Your task to perform on an android device: move a message to another label in the gmail app Image 0: 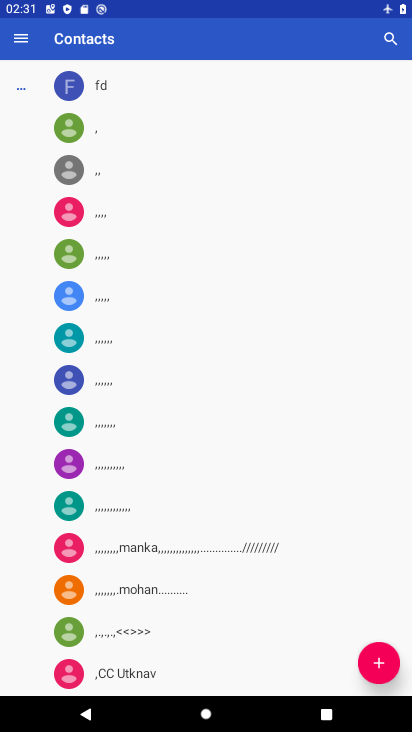
Step 0: press home button
Your task to perform on an android device: move a message to another label in the gmail app Image 1: 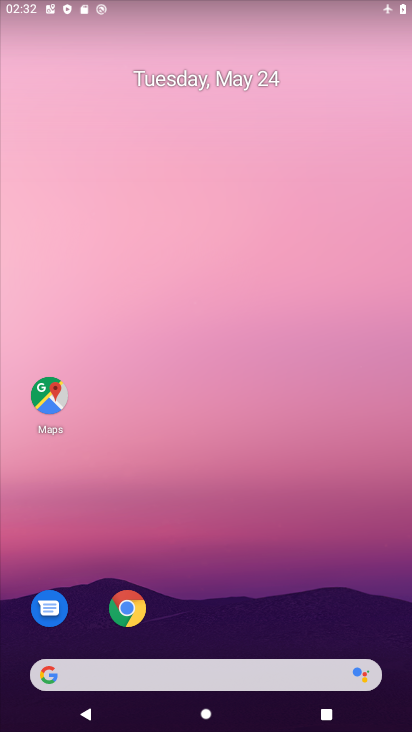
Step 1: drag from (272, 630) to (257, 267)
Your task to perform on an android device: move a message to another label in the gmail app Image 2: 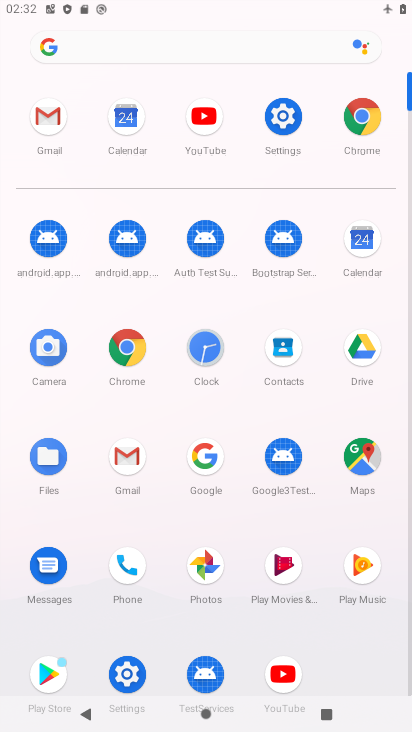
Step 2: click (56, 130)
Your task to perform on an android device: move a message to another label in the gmail app Image 3: 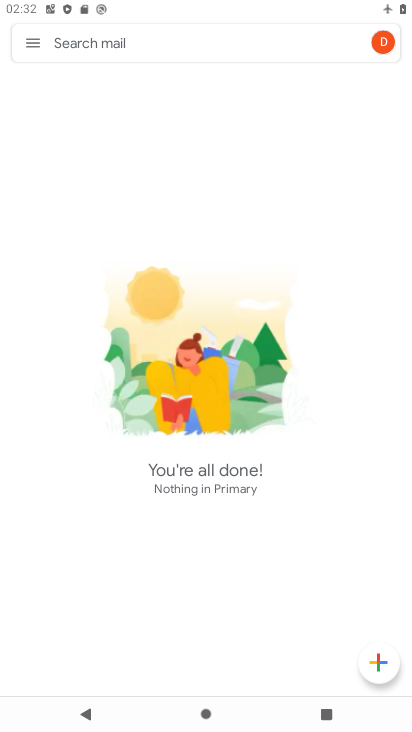
Step 3: click (31, 48)
Your task to perform on an android device: move a message to another label in the gmail app Image 4: 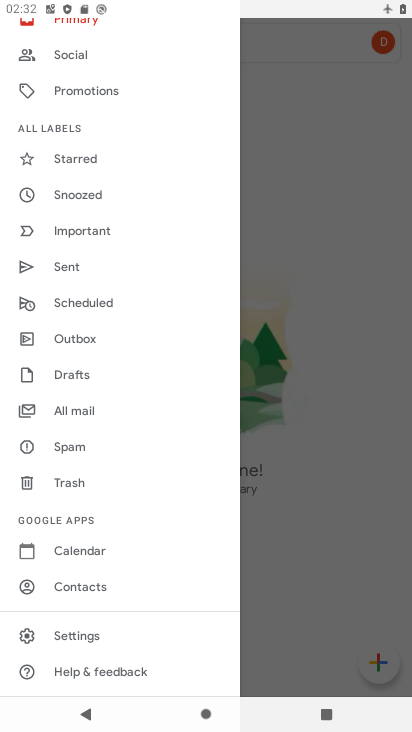
Step 4: click (108, 412)
Your task to perform on an android device: move a message to another label in the gmail app Image 5: 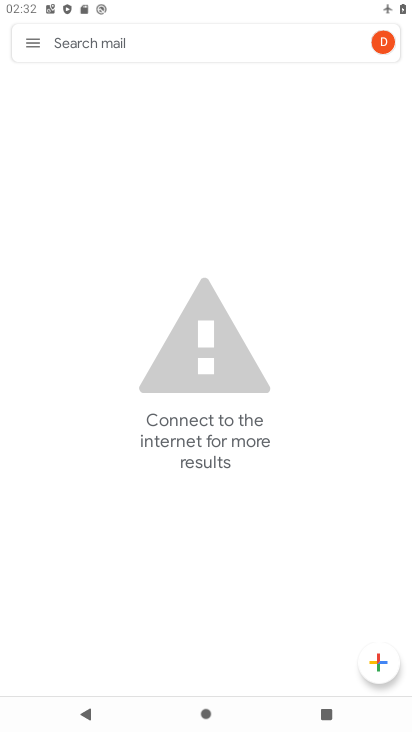
Step 5: task complete